Your task to perform on an android device: Open Chrome and go to settings Image 0: 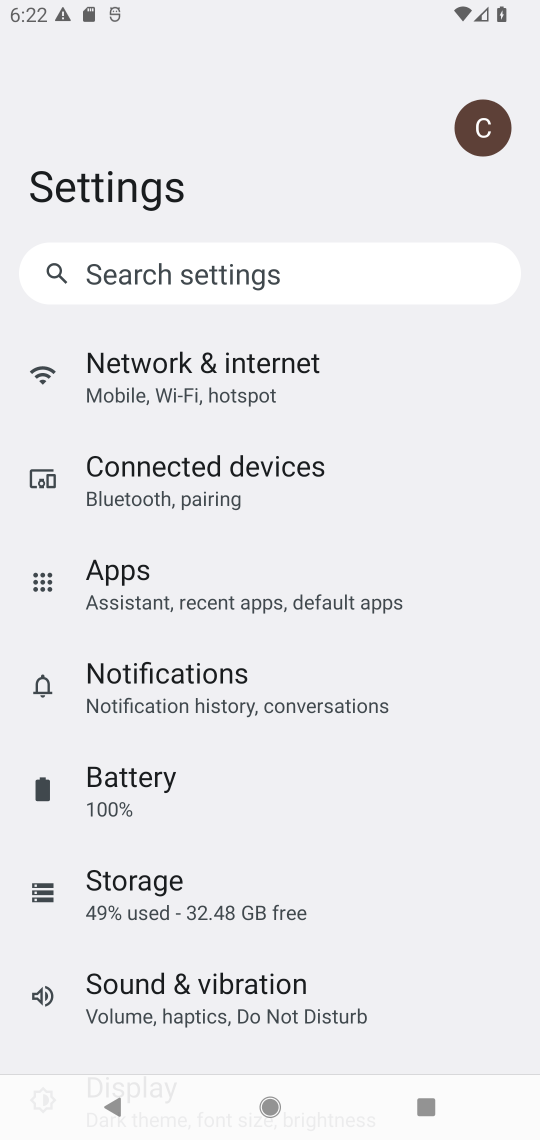
Step 0: press home button
Your task to perform on an android device: Open Chrome and go to settings Image 1: 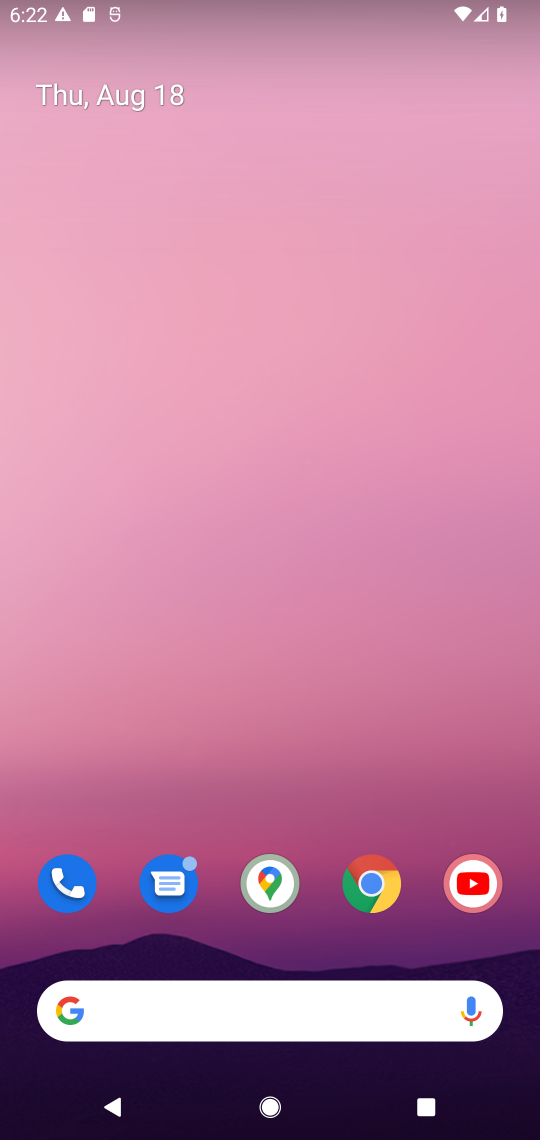
Step 1: click (391, 877)
Your task to perform on an android device: Open Chrome and go to settings Image 2: 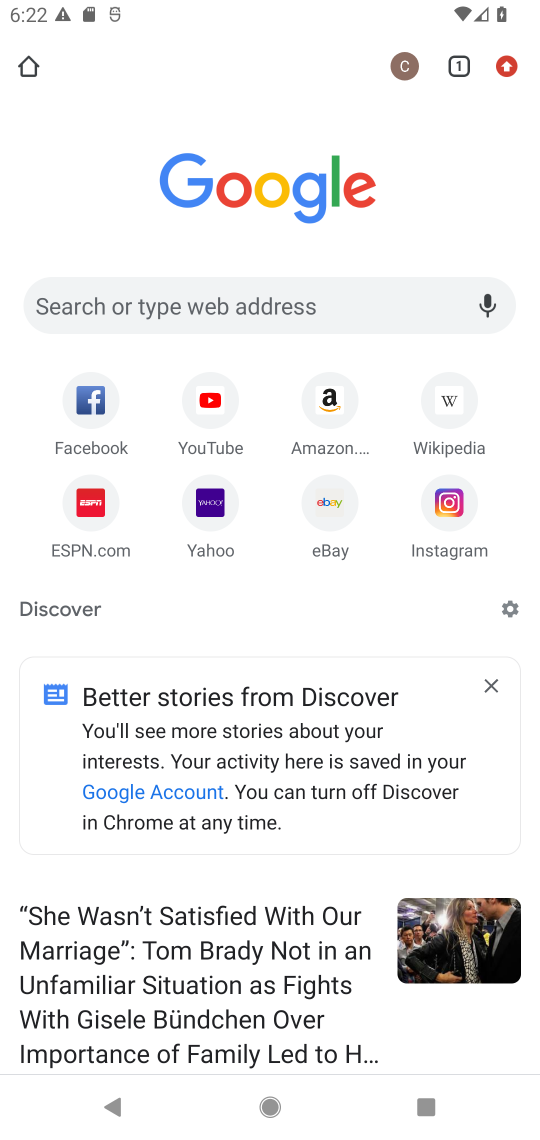
Step 2: click (500, 62)
Your task to perform on an android device: Open Chrome and go to settings Image 3: 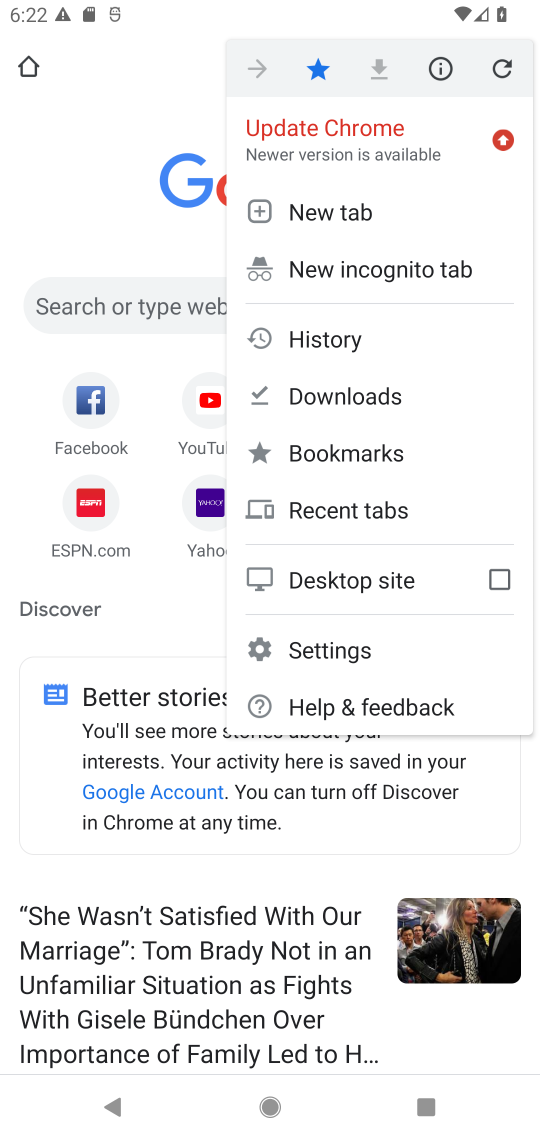
Step 3: click (349, 648)
Your task to perform on an android device: Open Chrome and go to settings Image 4: 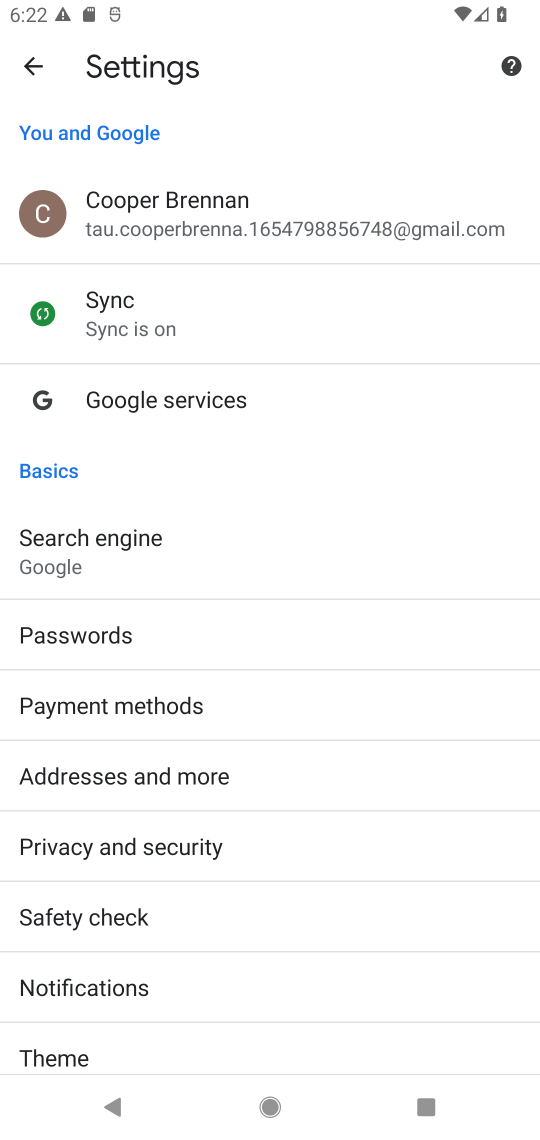
Step 4: task complete